Your task to perform on an android device: turn on showing notifications on the lock screen Image 0: 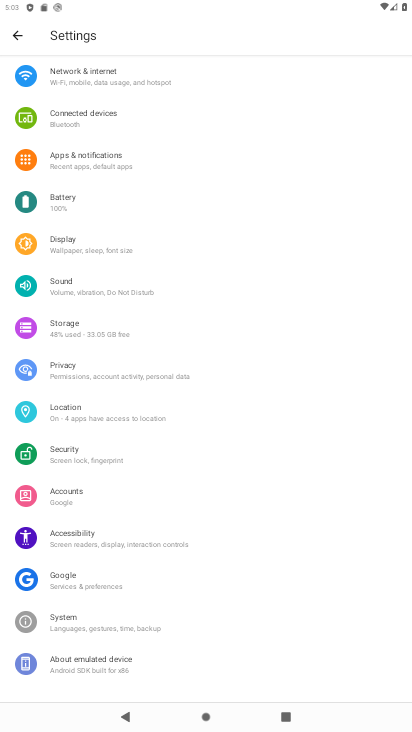
Step 0: click (90, 165)
Your task to perform on an android device: turn on showing notifications on the lock screen Image 1: 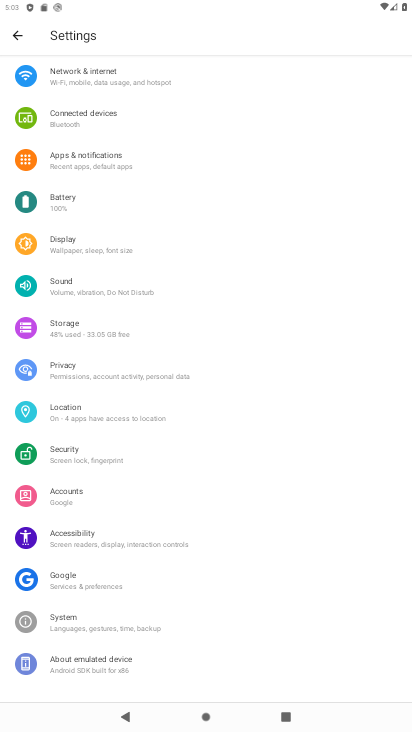
Step 1: click (90, 165)
Your task to perform on an android device: turn on showing notifications on the lock screen Image 2: 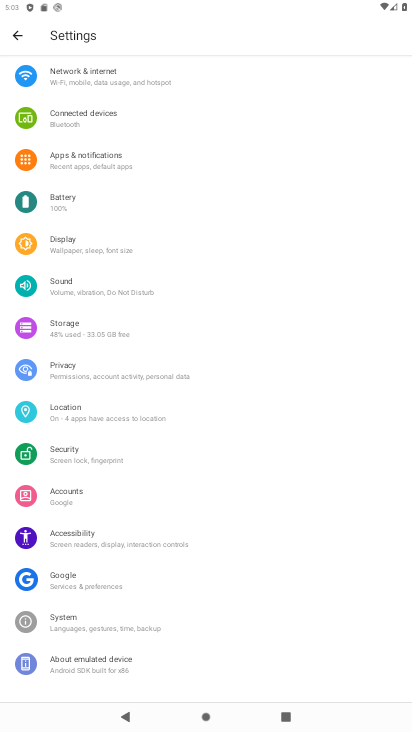
Step 2: click (90, 165)
Your task to perform on an android device: turn on showing notifications on the lock screen Image 3: 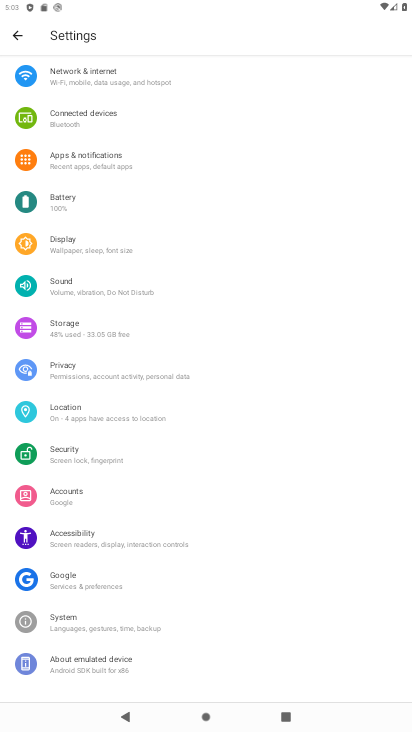
Step 3: click (86, 162)
Your task to perform on an android device: turn on showing notifications on the lock screen Image 4: 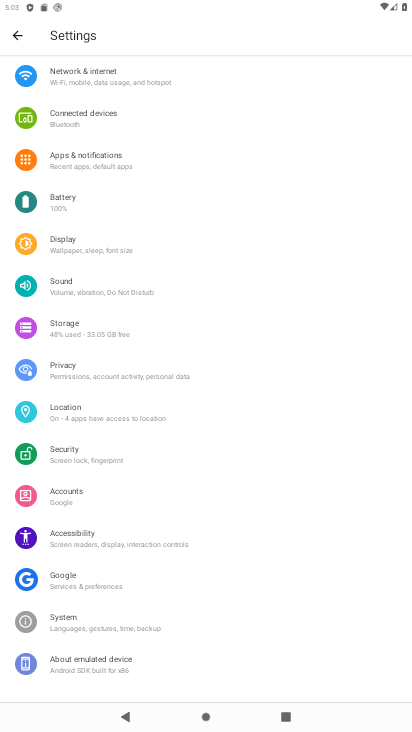
Step 4: click (75, 147)
Your task to perform on an android device: turn on showing notifications on the lock screen Image 5: 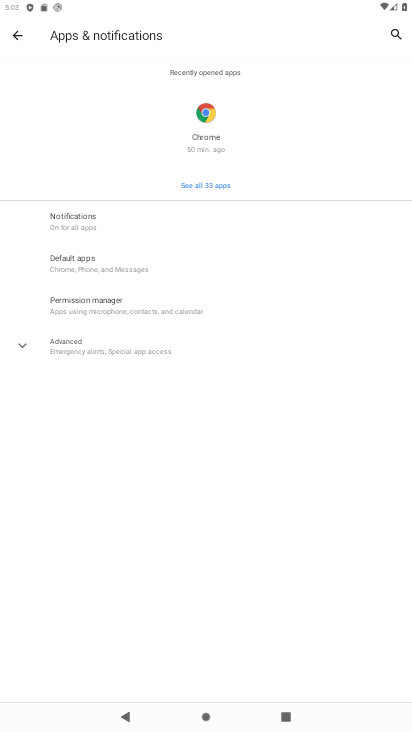
Step 5: click (78, 223)
Your task to perform on an android device: turn on showing notifications on the lock screen Image 6: 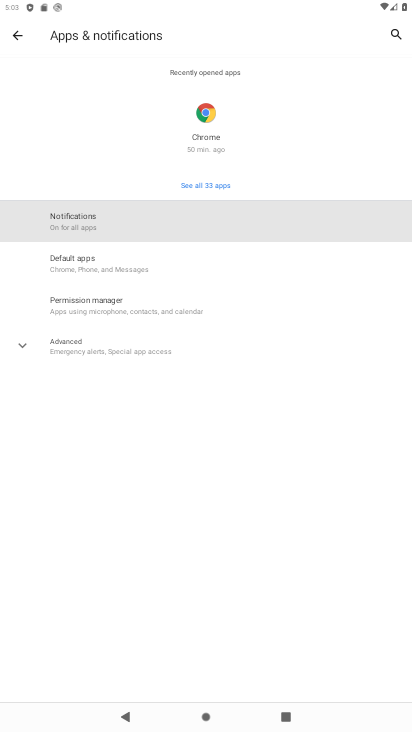
Step 6: click (78, 223)
Your task to perform on an android device: turn on showing notifications on the lock screen Image 7: 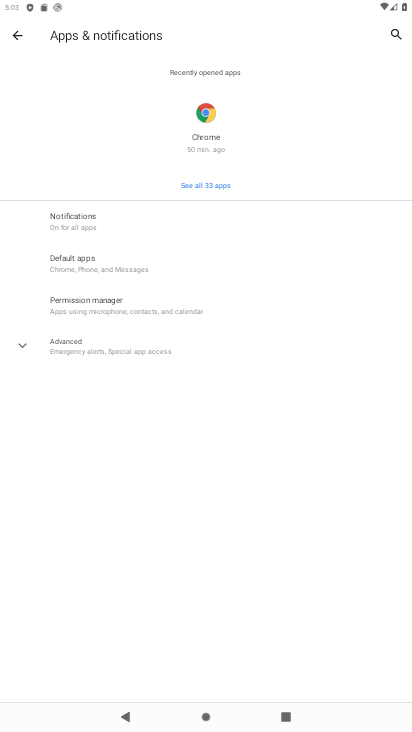
Step 7: click (77, 222)
Your task to perform on an android device: turn on showing notifications on the lock screen Image 8: 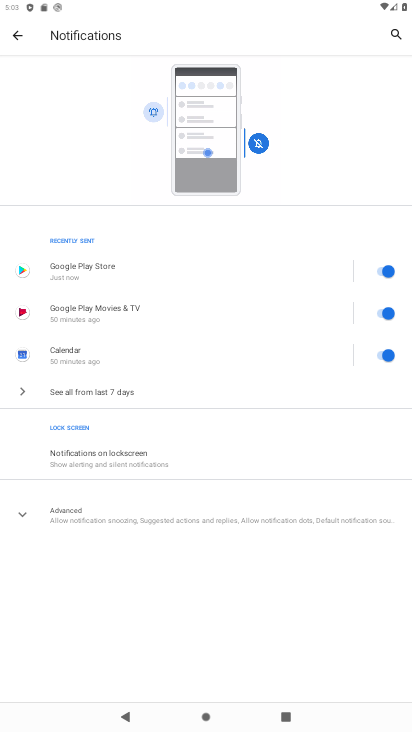
Step 8: click (92, 456)
Your task to perform on an android device: turn on showing notifications on the lock screen Image 9: 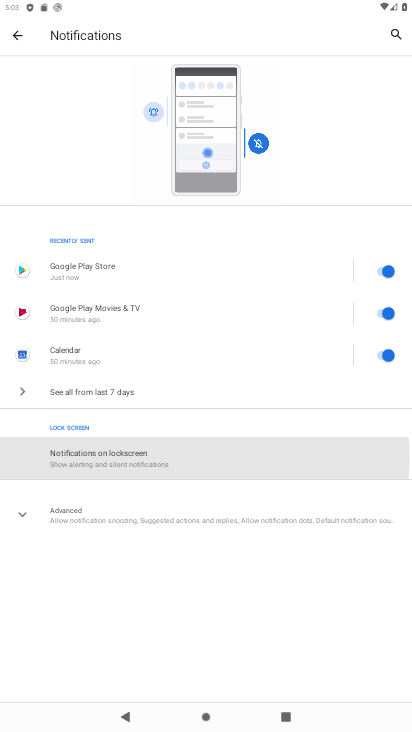
Step 9: click (92, 456)
Your task to perform on an android device: turn on showing notifications on the lock screen Image 10: 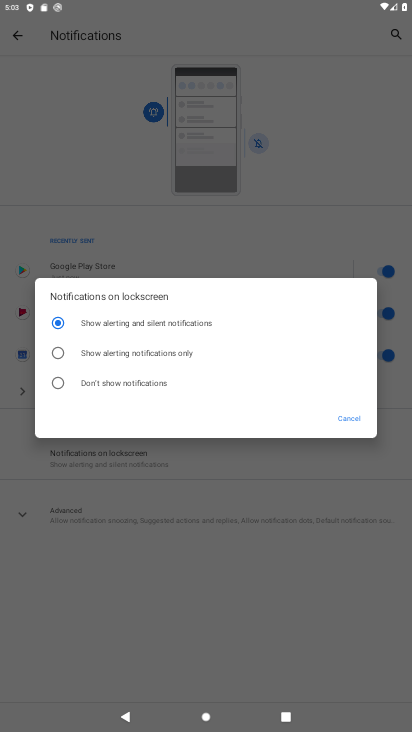
Step 10: task complete